Your task to perform on an android device: turn notification dots off Image 0: 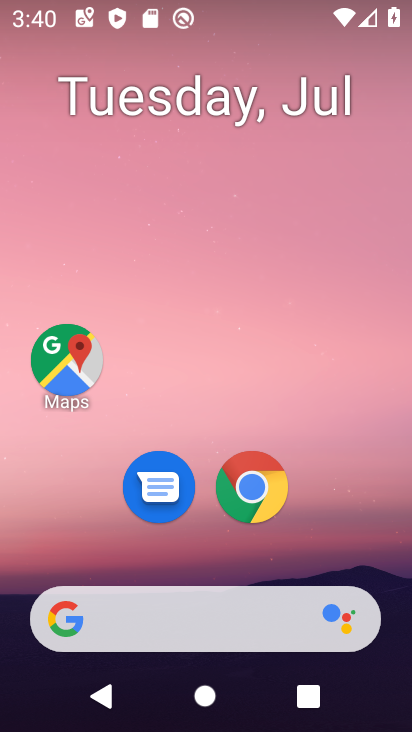
Step 0: drag from (153, 514) to (170, 3)
Your task to perform on an android device: turn notification dots off Image 1: 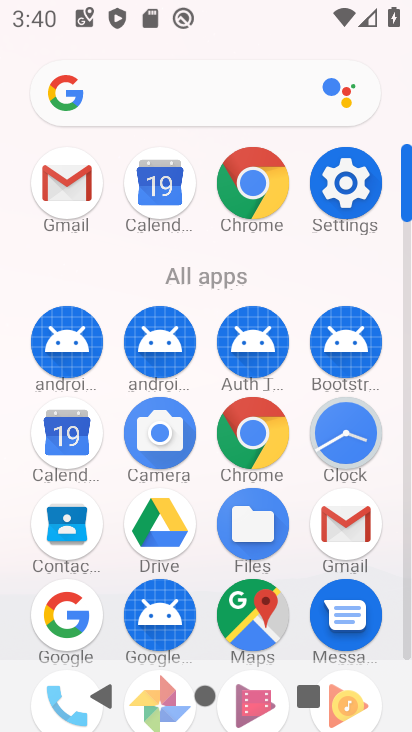
Step 1: click (341, 196)
Your task to perform on an android device: turn notification dots off Image 2: 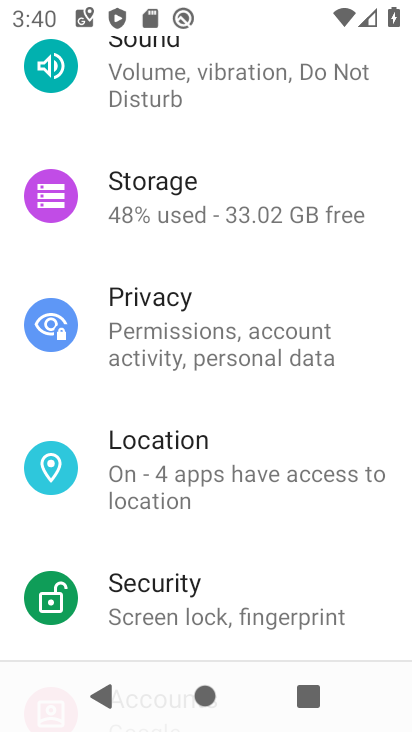
Step 2: drag from (259, 152) to (190, 682)
Your task to perform on an android device: turn notification dots off Image 3: 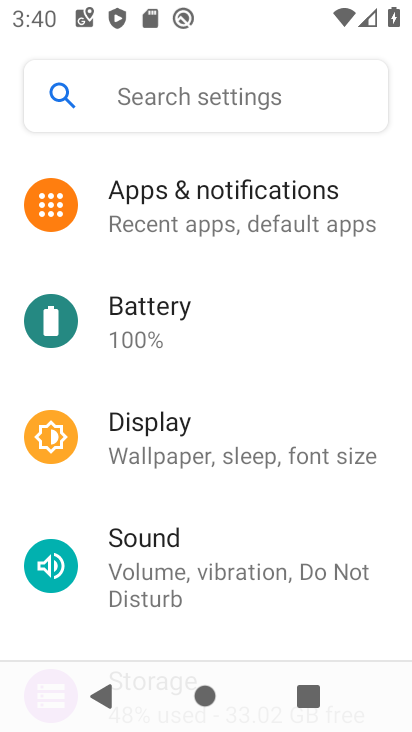
Step 3: click (212, 202)
Your task to perform on an android device: turn notification dots off Image 4: 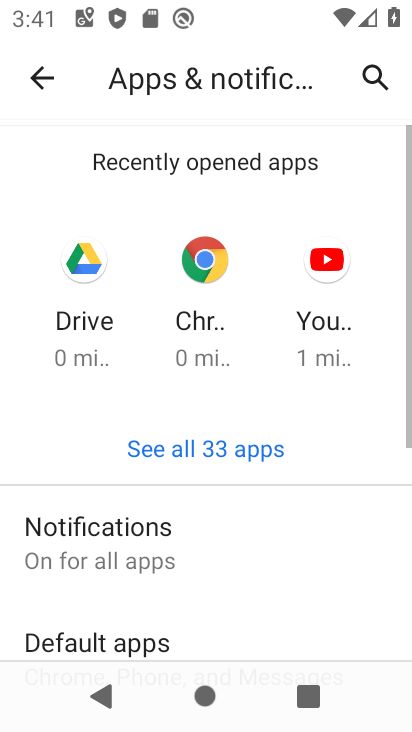
Step 4: click (180, 532)
Your task to perform on an android device: turn notification dots off Image 5: 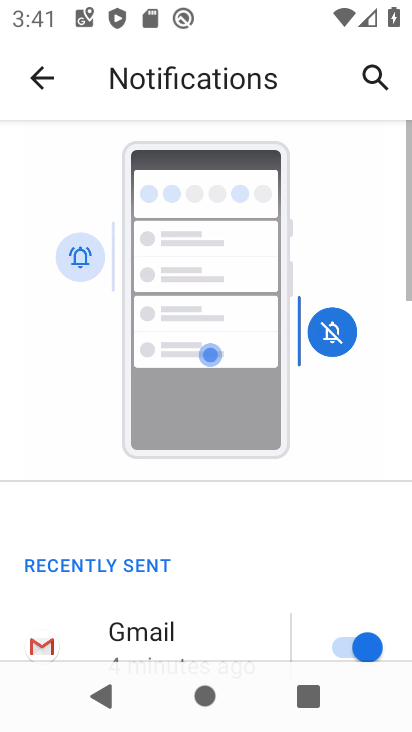
Step 5: drag from (190, 594) to (277, 23)
Your task to perform on an android device: turn notification dots off Image 6: 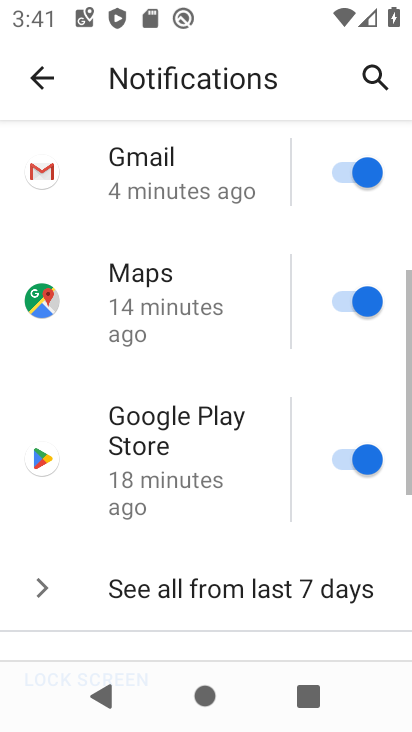
Step 6: drag from (189, 579) to (252, 16)
Your task to perform on an android device: turn notification dots off Image 7: 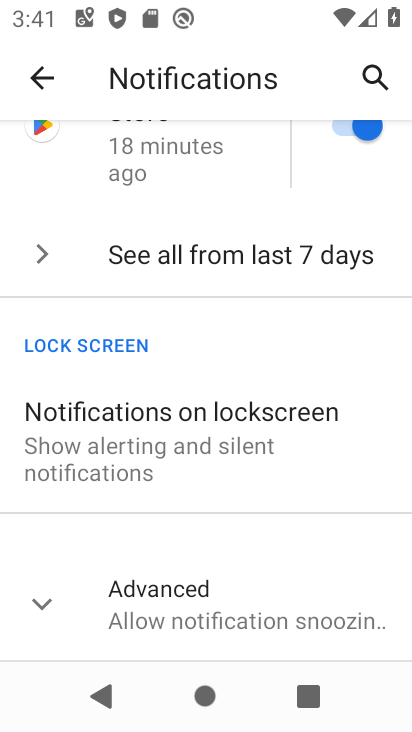
Step 7: click (234, 582)
Your task to perform on an android device: turn notification dots off Image 8: 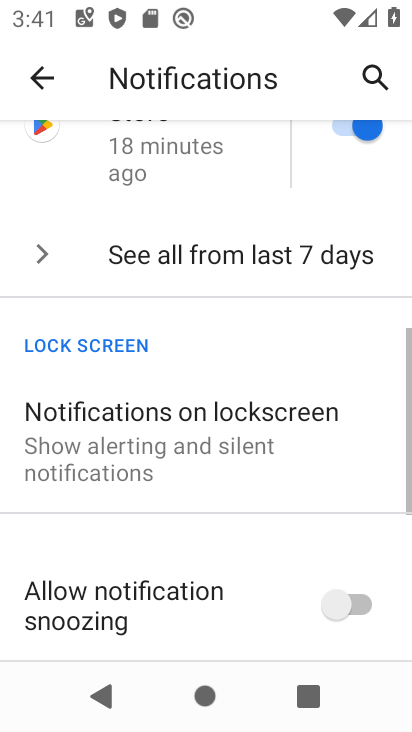
Step 8: drag from (242, 617) to (307, 80)
Your task to perform on an android device: turn notification dots off Image 9: 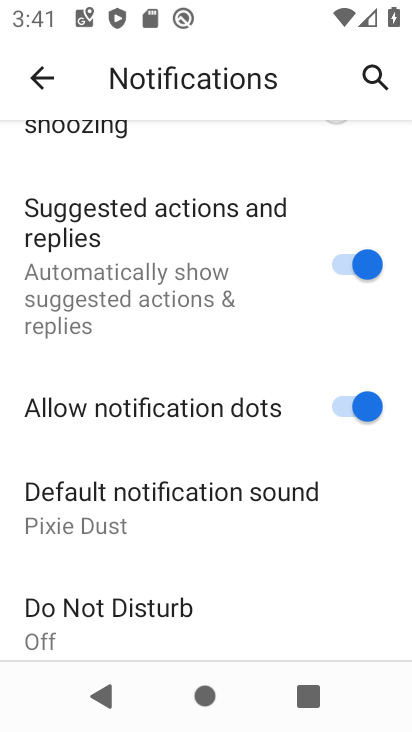
Step 9: click (371, 409)
Your task to perform on an android device: turn notification dots off Image 10: 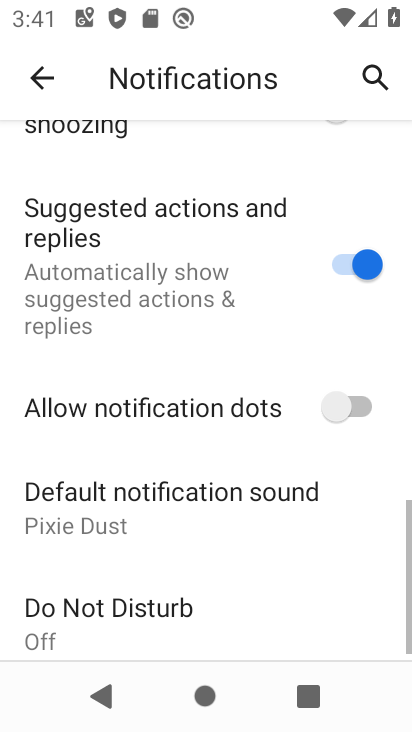
Step 10: task complete